Your task to perform on an android device: Go to calendar. Show me events next week Image 0: 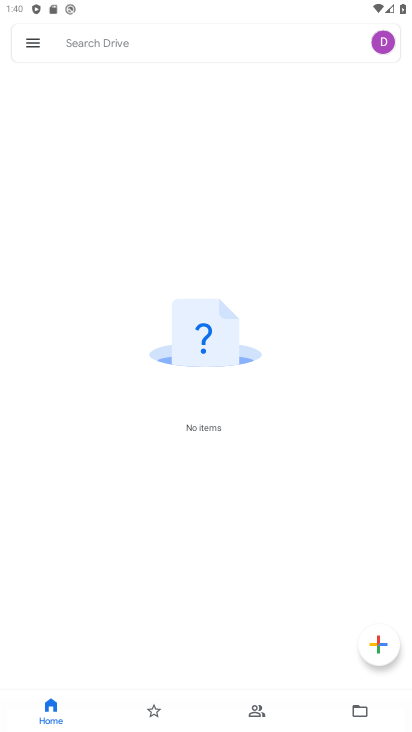
Step 0: press home button
Your task to perform on an android device: Go to calendar. Show me events next week Image 1: 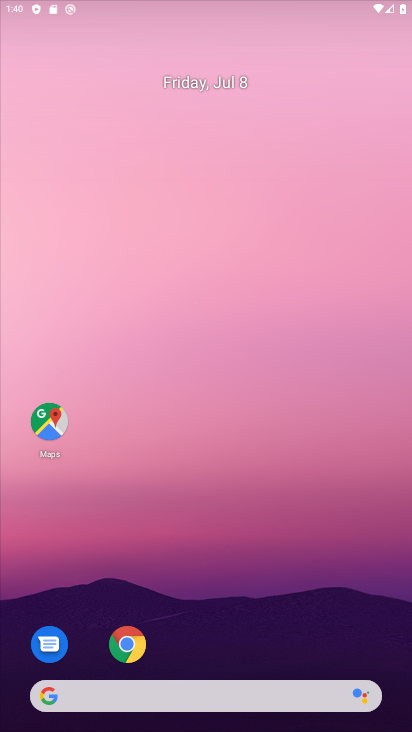
Step 1: drag from (237, 626) to (272, 120)
Your task to perform on an android device: Go to calendar. Show me events next week Image 2: 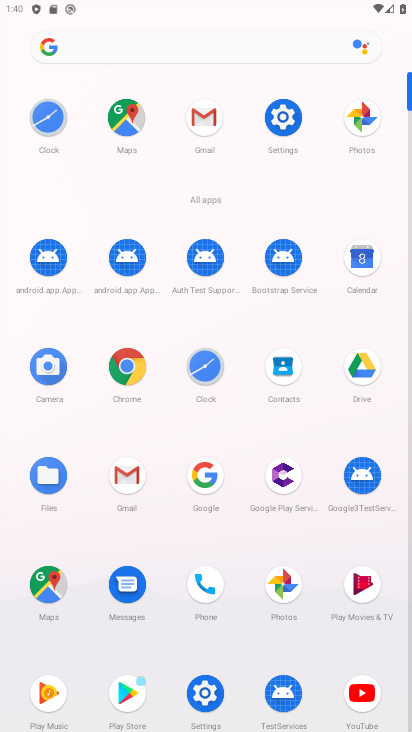
Step 2: click (362, 261)
Your task to perform on an android device: Go to calendar. Show me events next week Image 3: 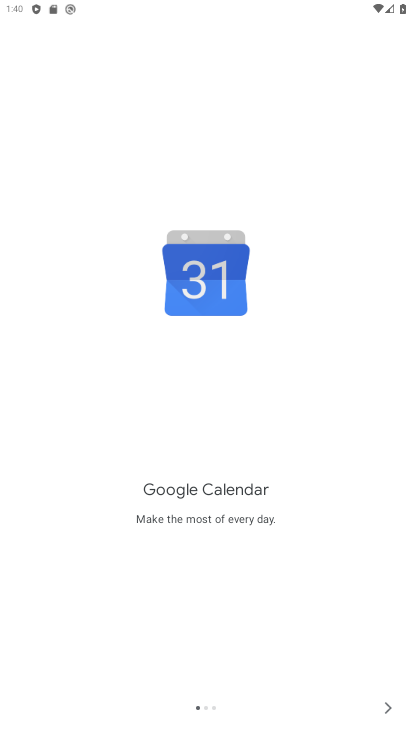
Step 3: click (385, 708)
Your task to perform on an android device: Go to calendar. Show me events next week Image 4: 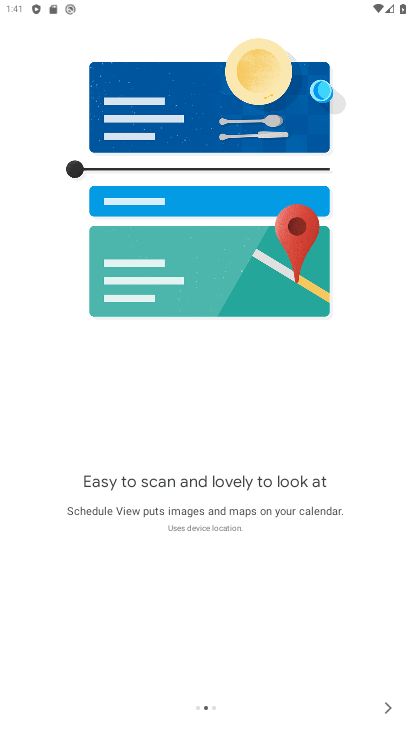
Step 4: click (385, 708)
Your task to perform on an android device: Go to calendar. Show me events next week Image 5: 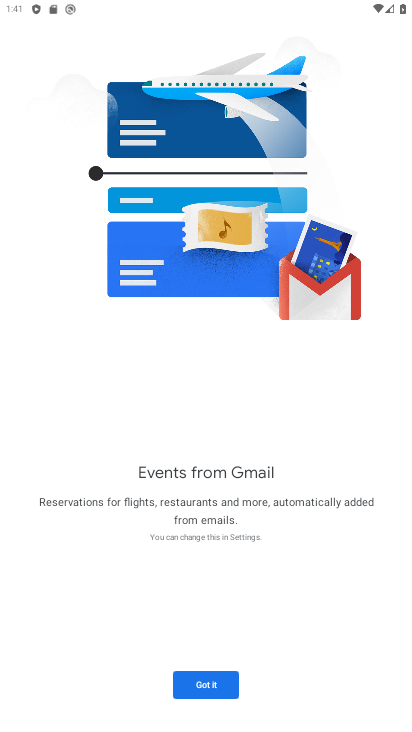
Step 5: click (386, 708)
Your task to perform on an android device: Go to calendar. Show me events next week Image 6: 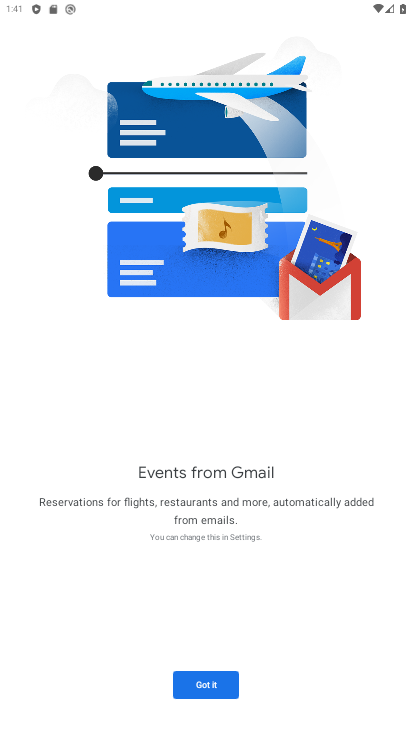
Step 6: click (204, 684)
Your task to perform on an android device: Go to calendar. Show me events next week Image 7: 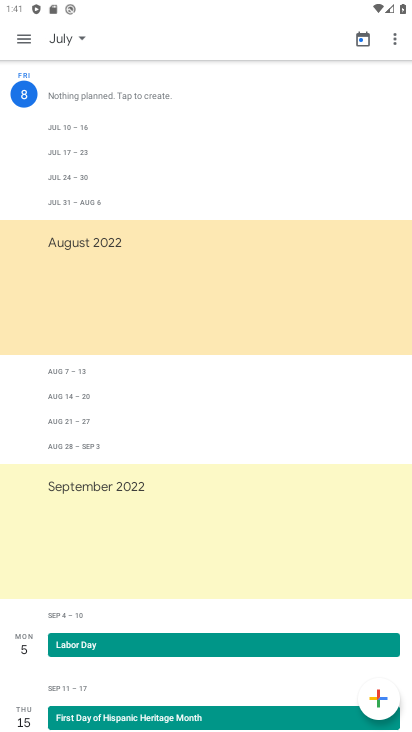
Step 7: click (69, 42)
Your task to perform on an android device: Go to calendar. Show me events next week Image 8: 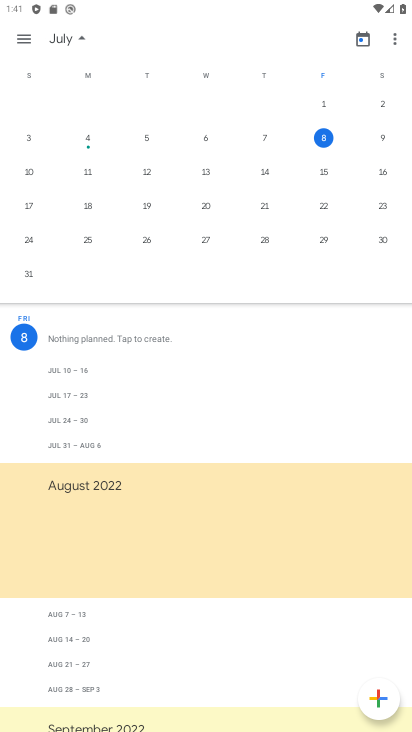
Step 8: click (326, 168)
Your task to perform on an android device: Go to calendar. Show me events next week Image 9: 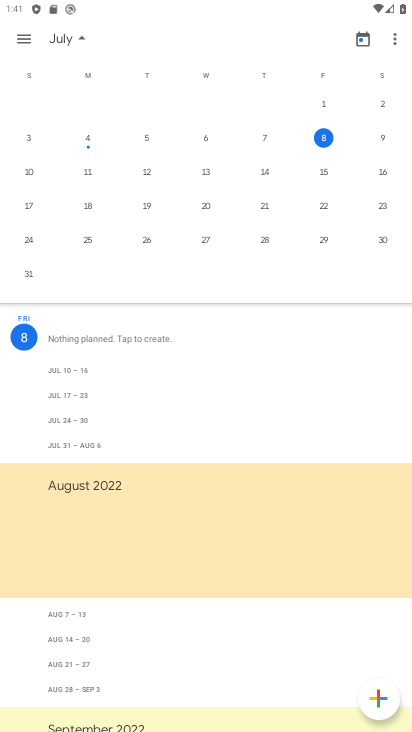
Step 9: click (320, 174)
Your task to perform on an android device: Go to calendar. Show me events next week Image 10: 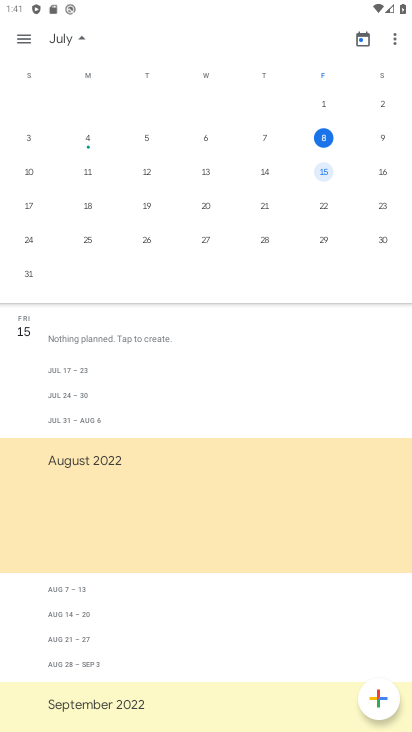
Step 10: task complete